Your task to perform on an android device: change the clock display to digital Image 0: 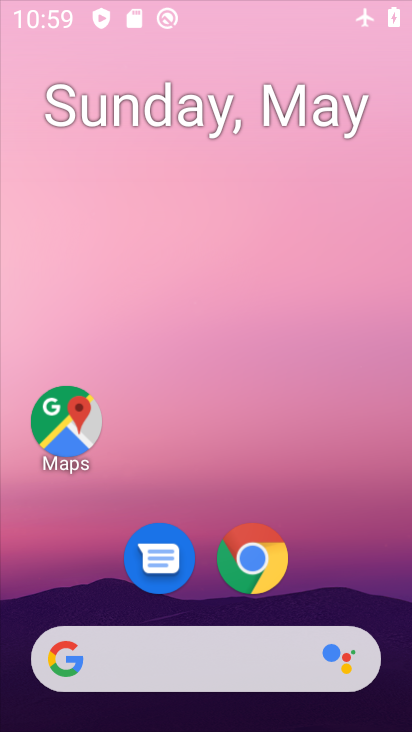
Step 0: click (376, 76)
Your task to perform on an android device: change the clock display to digital Image 1: 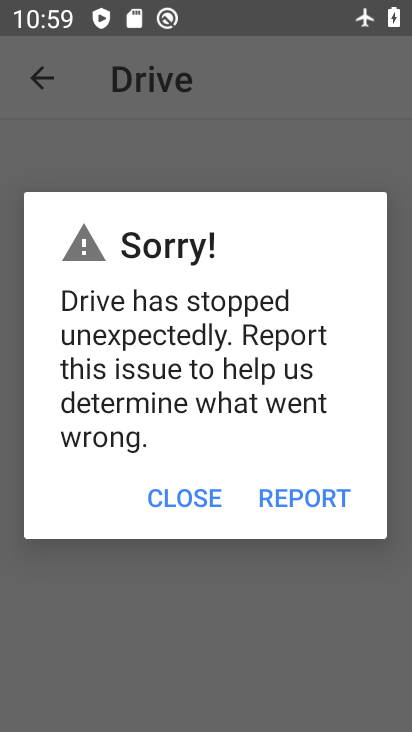
Step 1: press home button
Your task to perform on an android device: change the clock display to digital Image 2: 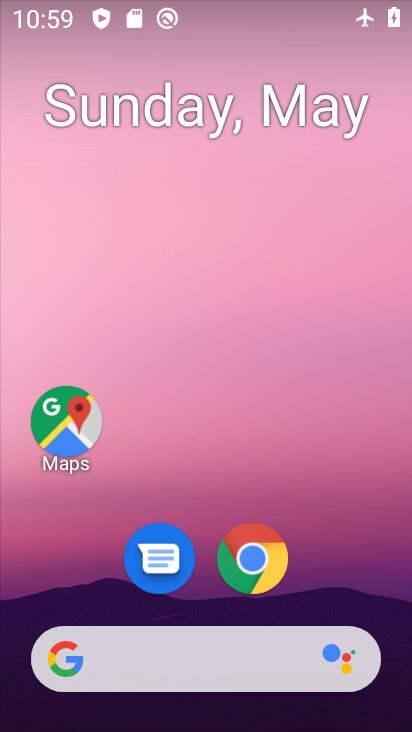
Step 2: drag from (374, 575) to (345, 126)
Your task to perform on an android device: change the clock display to digital Image 3: 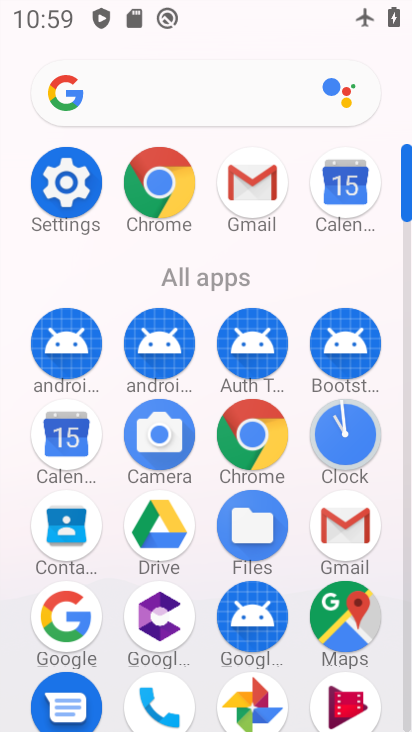
Step 3: click (358, 445)
Your task to perform on an android device: change the clock display to digital Image 4: 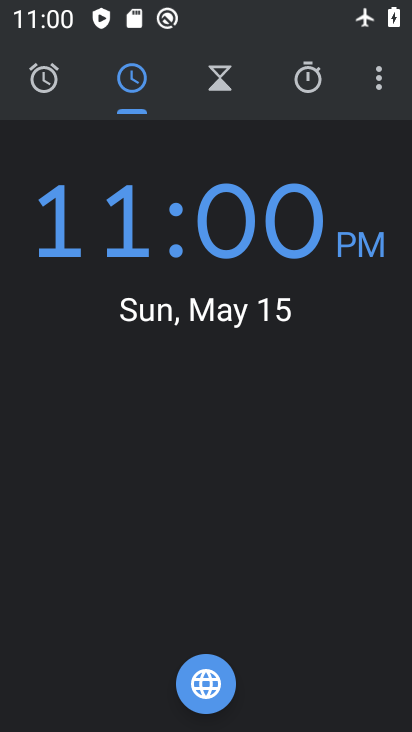
Step 4: click (379, 89)
Your task to perform on an android device: change the clock display to digital Image 5: 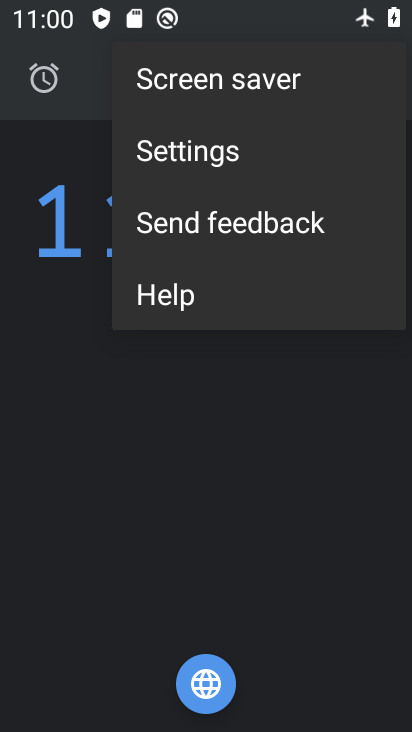
Step 5: click (241, 172)
Your task to perform on an android device: change the clock display to digital Image 6: 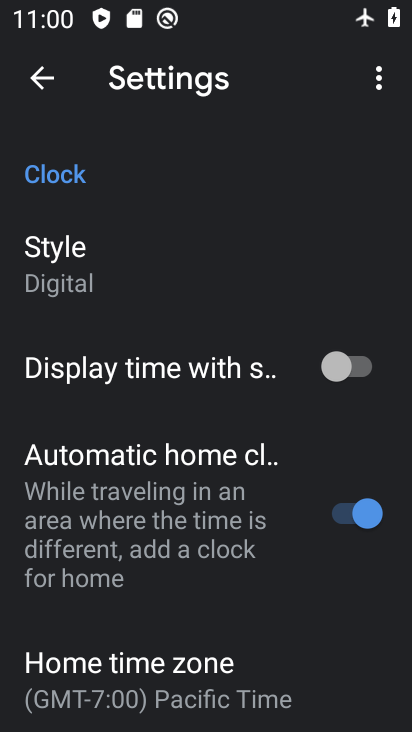
Step 6: task complete